Your task to perform on an android device: star an email in the gmail app Image 0: 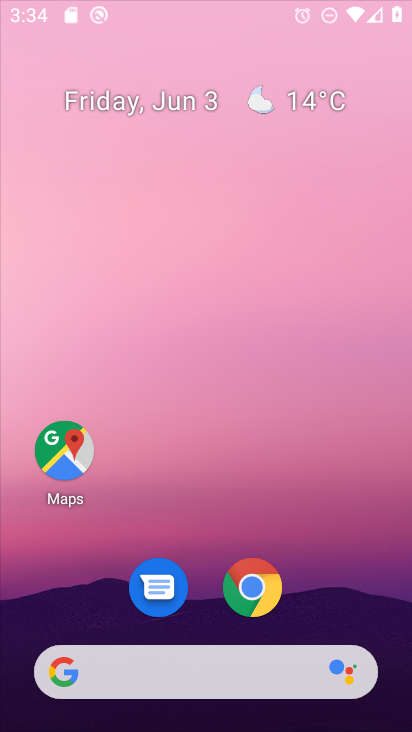
Step 0: drag from (209, 571) to (209, 299)
Your task to perform on an android device: star an email in the gmail app Image 1: 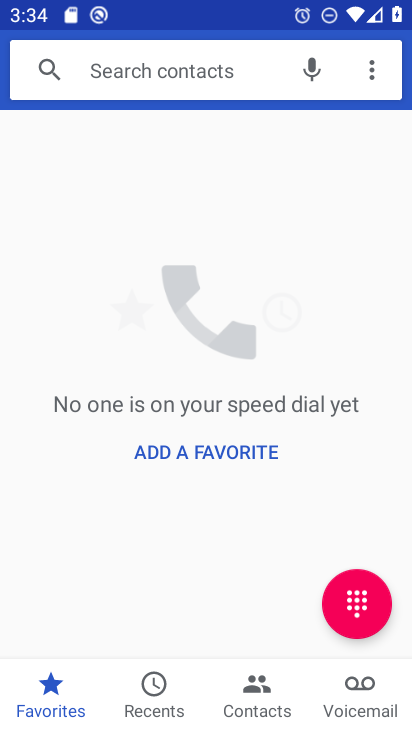
Step 1: press home button
Your task to perform on an android device: star an email in the gmail app Image 2: 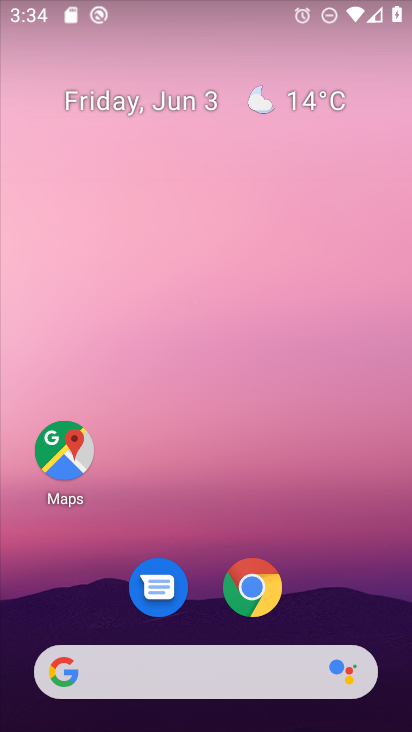
Step 2: drag from (257, 722) to (238, 233)
Your task to perform on an android device: star an email in the gmail app Image 3: 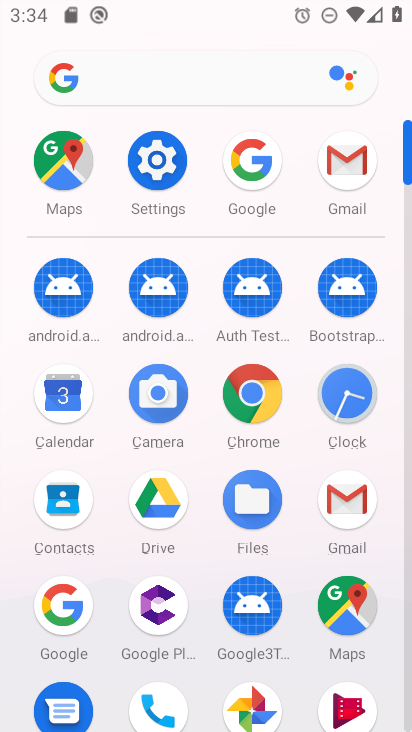
Step 3: click (353, 496)
Your task to perform on an android device: star an email in the gmail app Image 4: 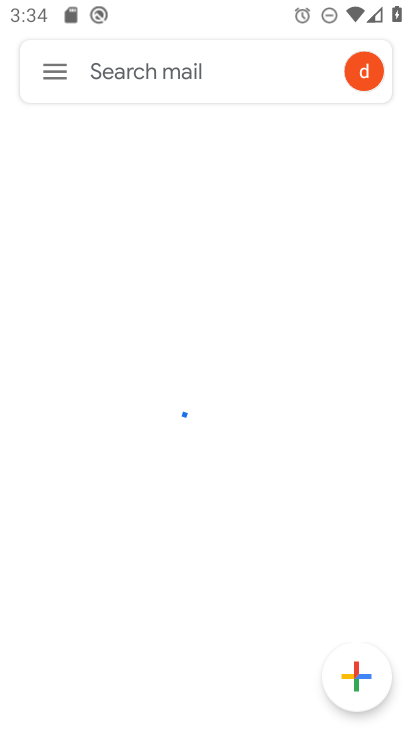
Step 4: task complete